Your task to perform on an android device: View the shopping cart on walmart.com. Add razer thresher to the cart on walmart.com, then select checkout. Image 0: 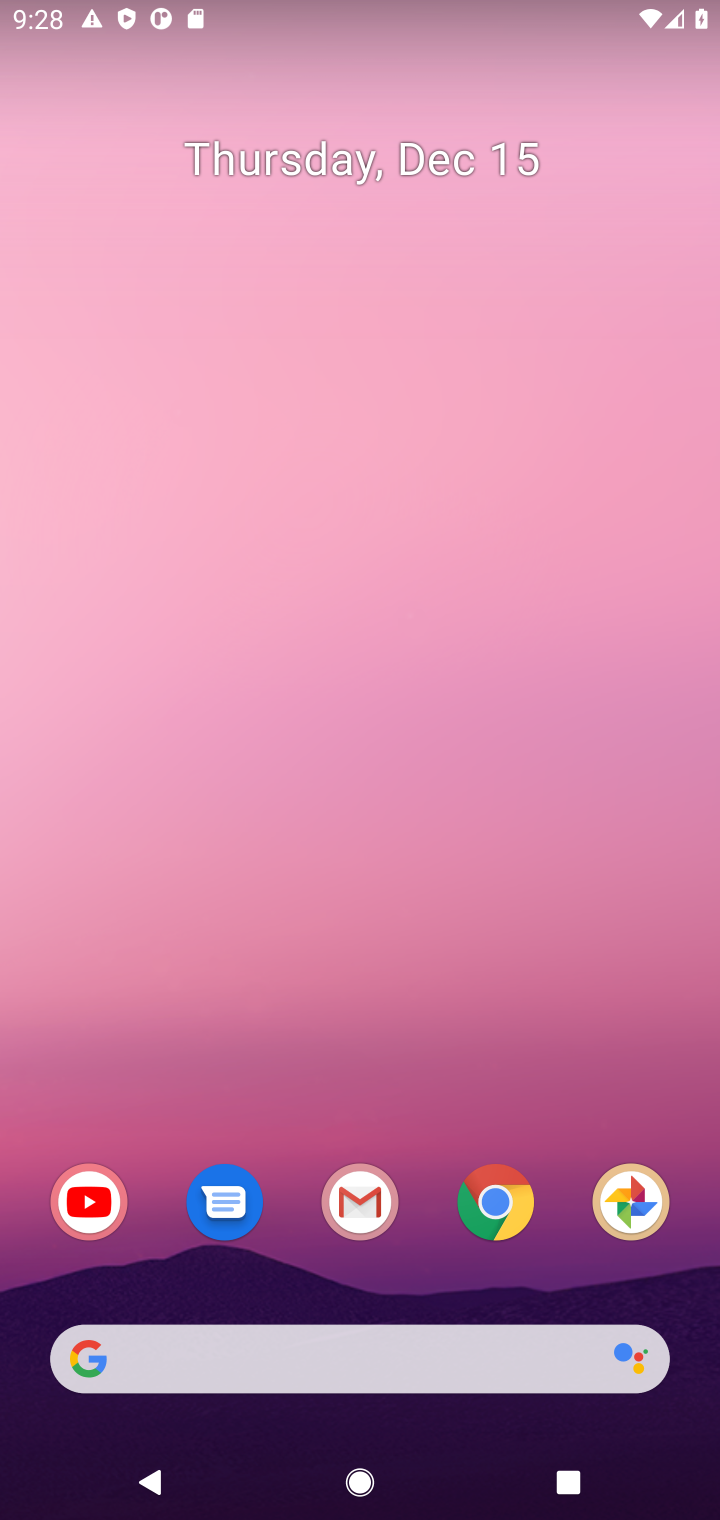
Step 0: click (497, 1197)
Your task to perform on an android device: View the shopping cart on walmart.com. Add razer thresher to the cart on walmart.com, then select checkout. Image 1: 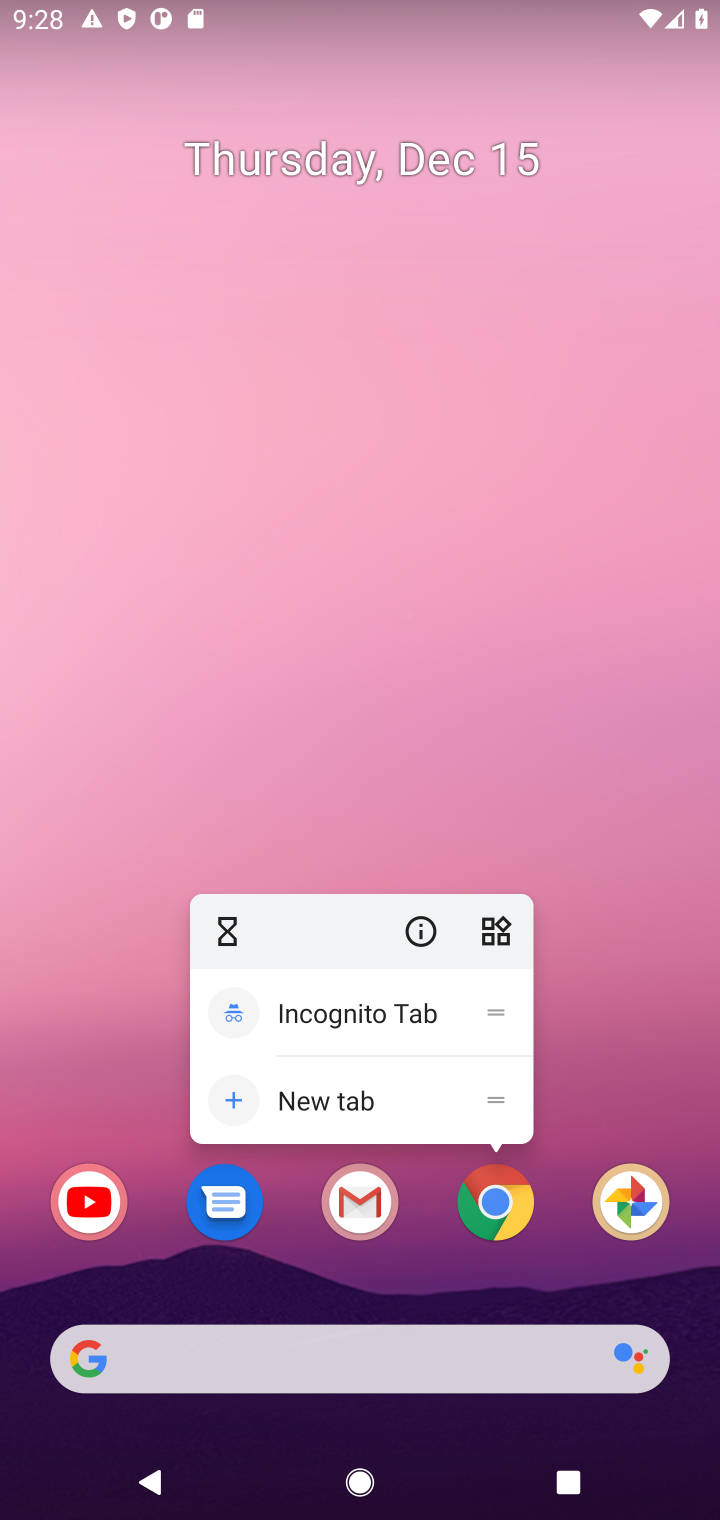
Step 1: click (497, 1209)
Your task to perform on an android device: View the shopping cart on walmart.com. Add razer thresher to the cart on walmart.com, then select checkout. Image 2: 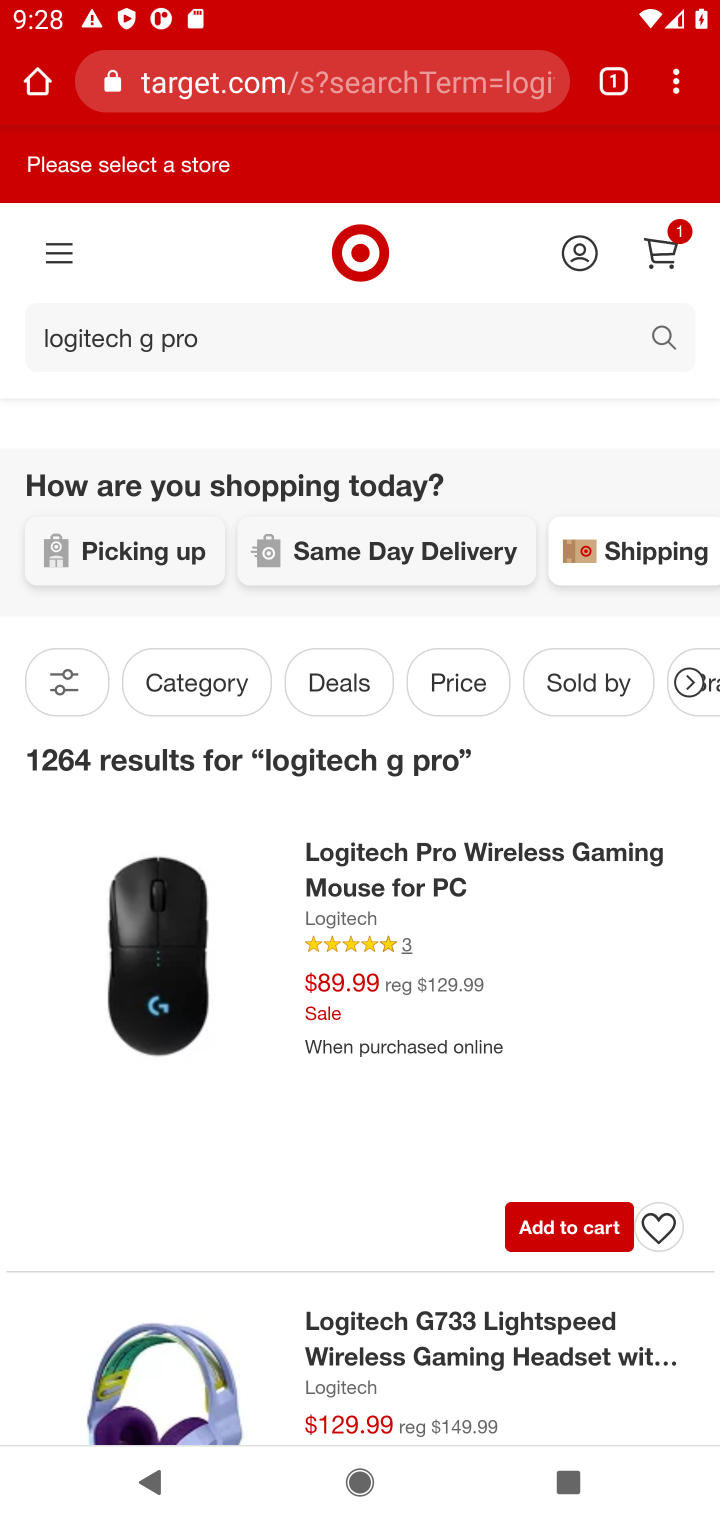
Step 2: click (280, 94)
Your task to perform on an android device: View the shopping cart on walmart.com. Add razer thresher to the cart on walmart.com, then select checkout. Image 3: 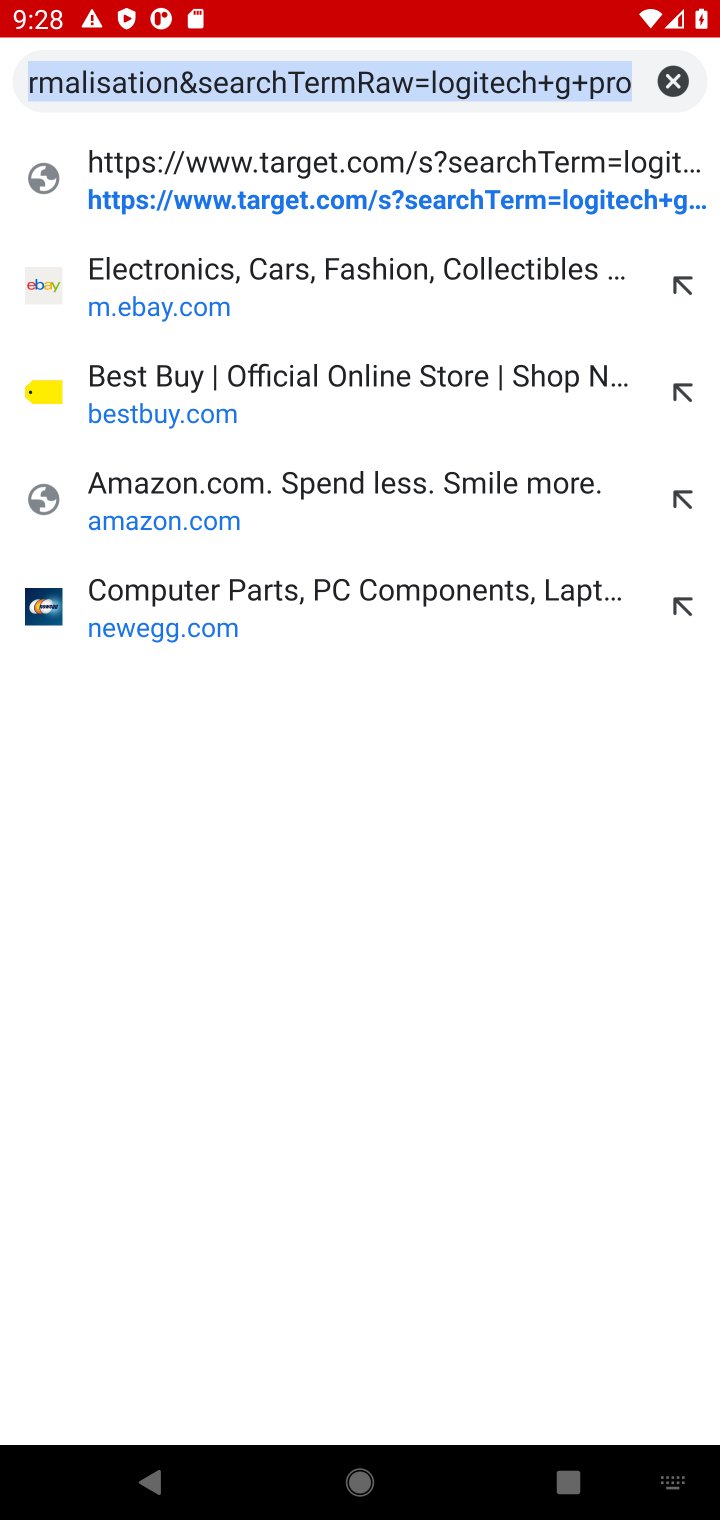
Step 3: type "walmart.com"
Your task to perform on an android device: View the shopping cart on walmart.com. Add razer thresher to the cart on walmart.com, then select checkout. Image 4: 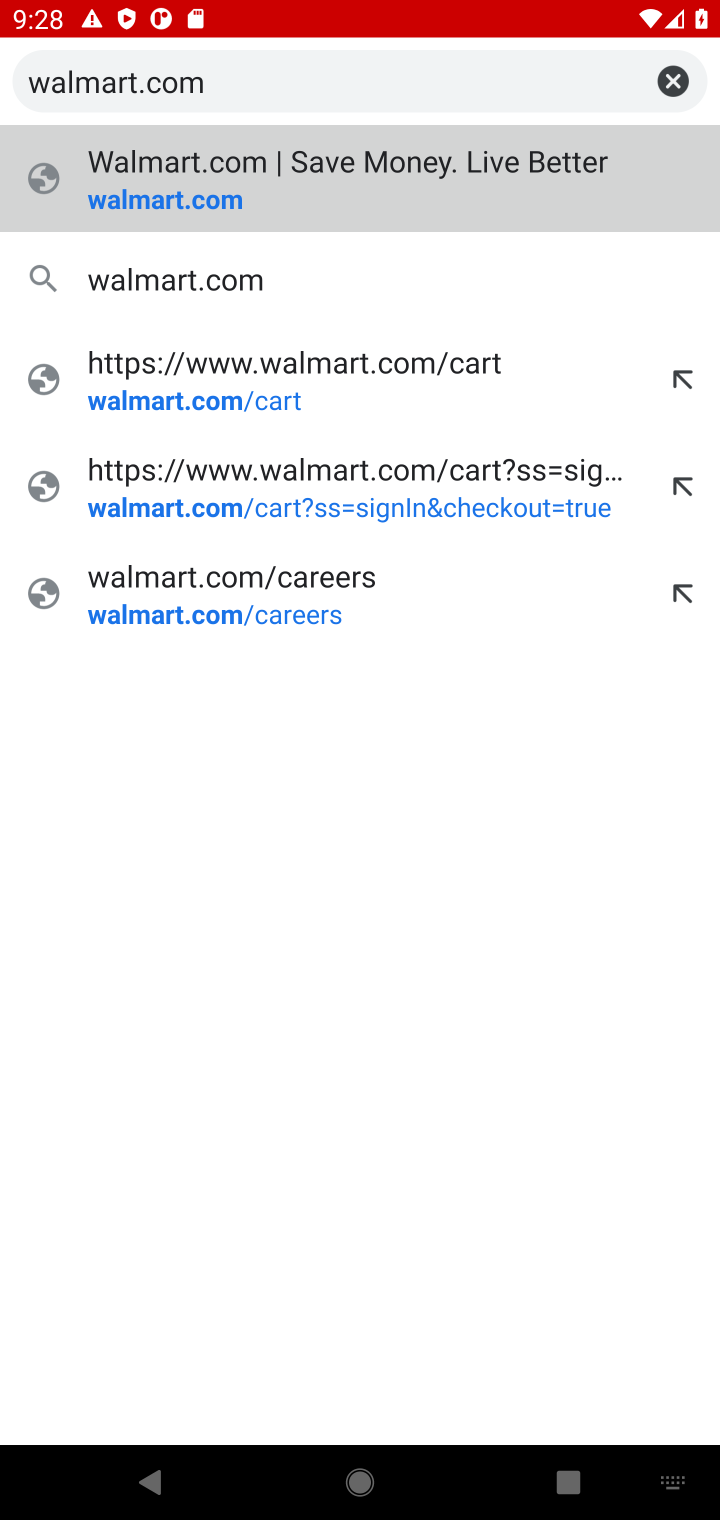
Step 4: click (127, 194)
Your task to perform on an android device: View the shopping cart on walmart.com. Add razer thresher to the cart on walmart.com, then select checkout. Image 5: 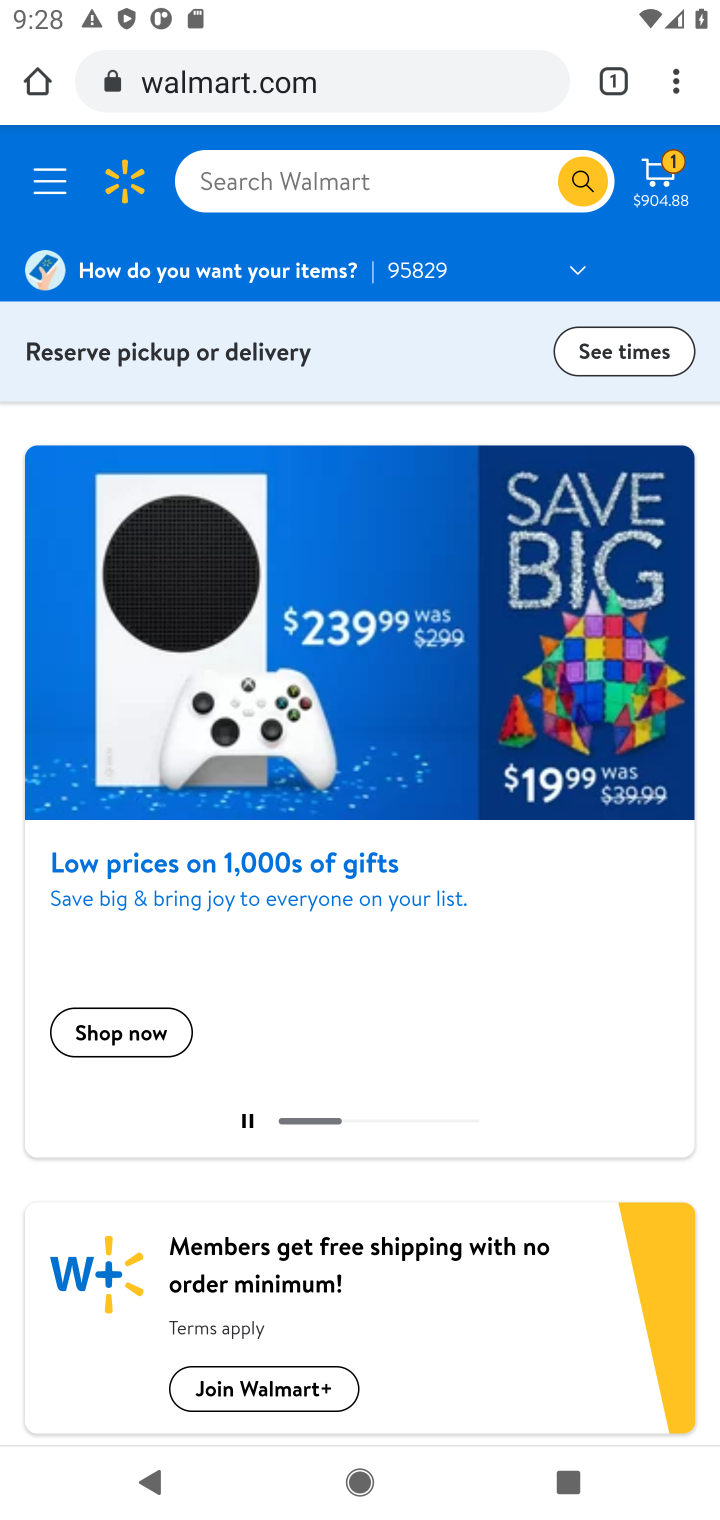
Step 5: click (671, 191)
Your task to perform on an android device: View the shopping cart on walmart.com. Add razer thresher to the cart on walmart.com, then select checkout. Image 6: 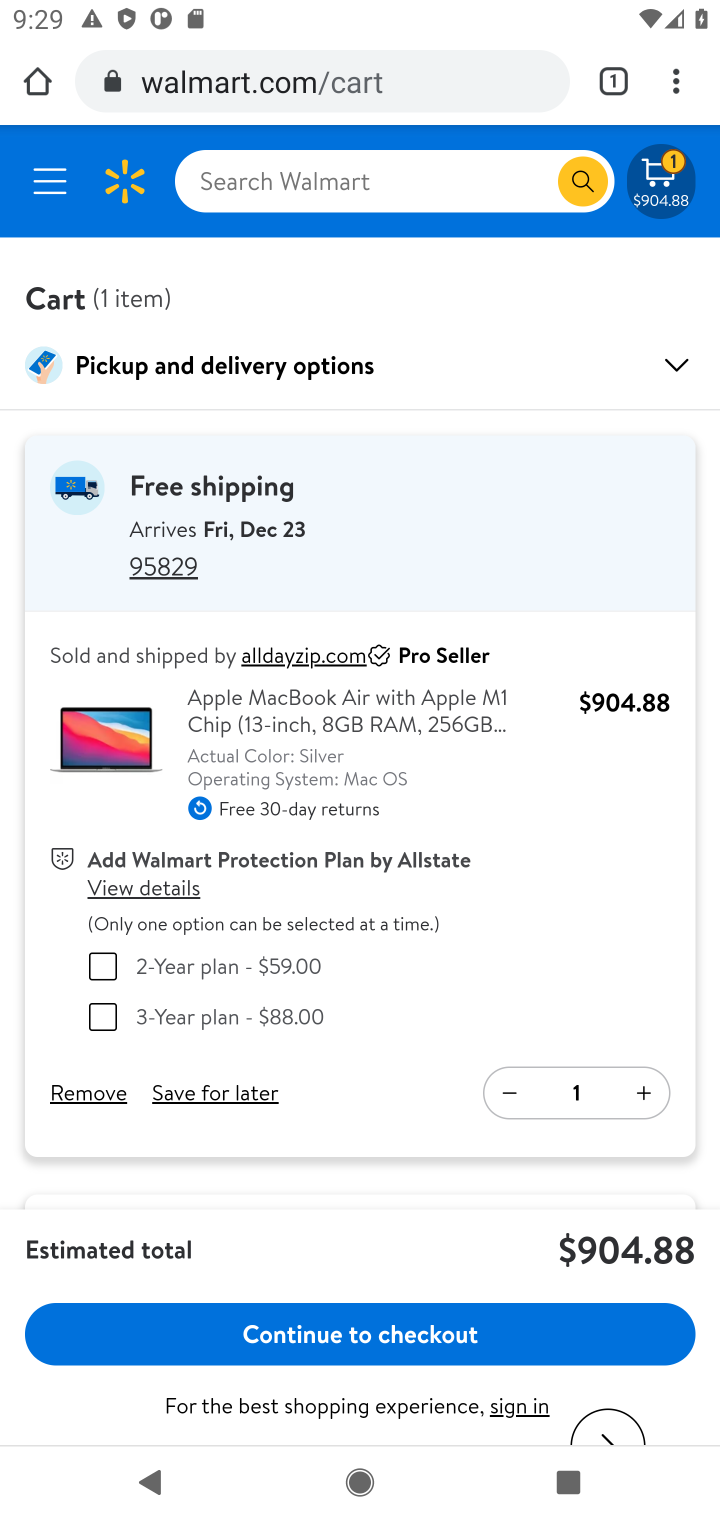
Step 6: click (244, 185)
Your task to perform on an android device: View the shopping cart on walmart.com. Add razer thresher to the cart on walmart.com, then select checkout. Image 7: 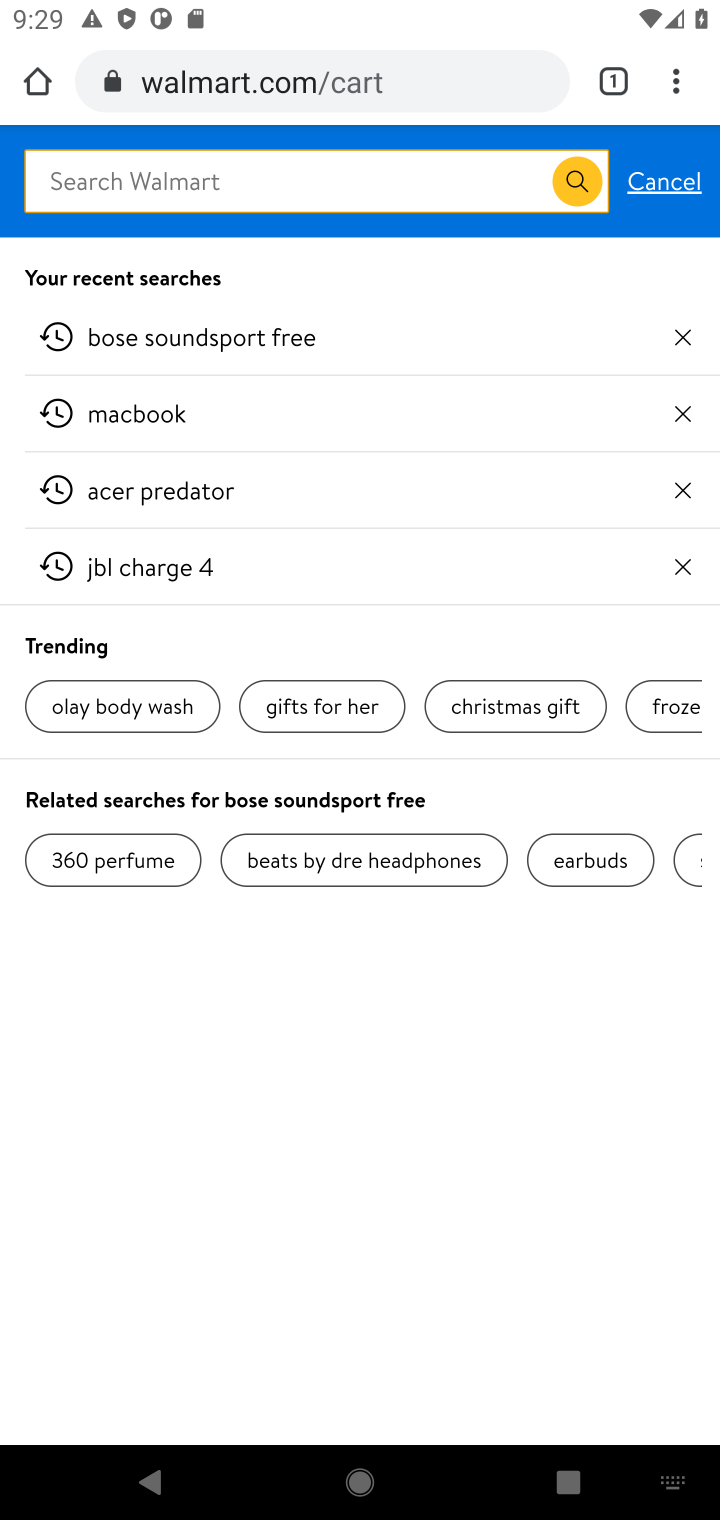
Step 7: type " razer thresher"
Your task to perform on an android device: View the shopping cart on walmart.com. Add razer thresher to the cart on walmart.com, then select checkout. Image 8: 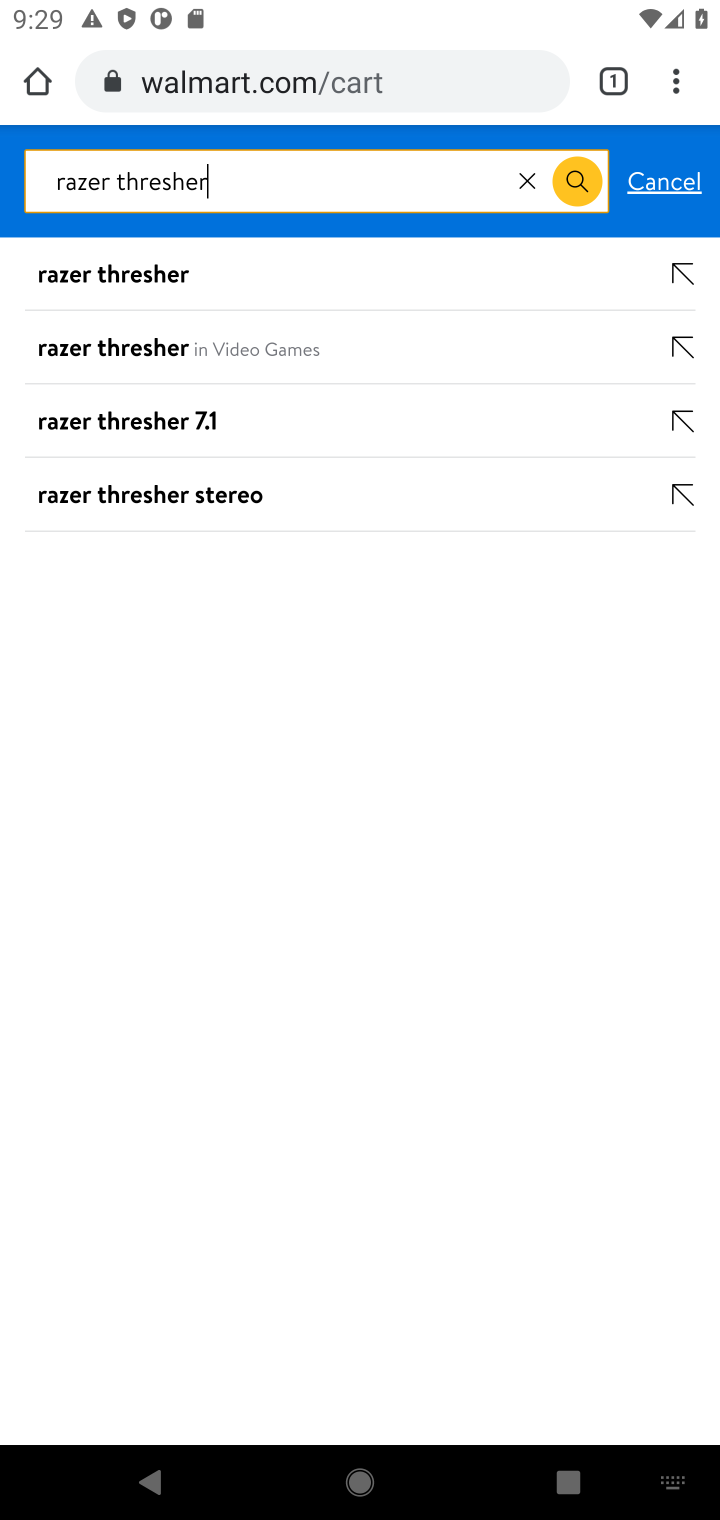
Step 8: click (147, 281)
Your task to perform on an android device: View the shopping cart on walmart.com. Add razer thresher to the cart on walmart.com, then select checkout. Image 9: 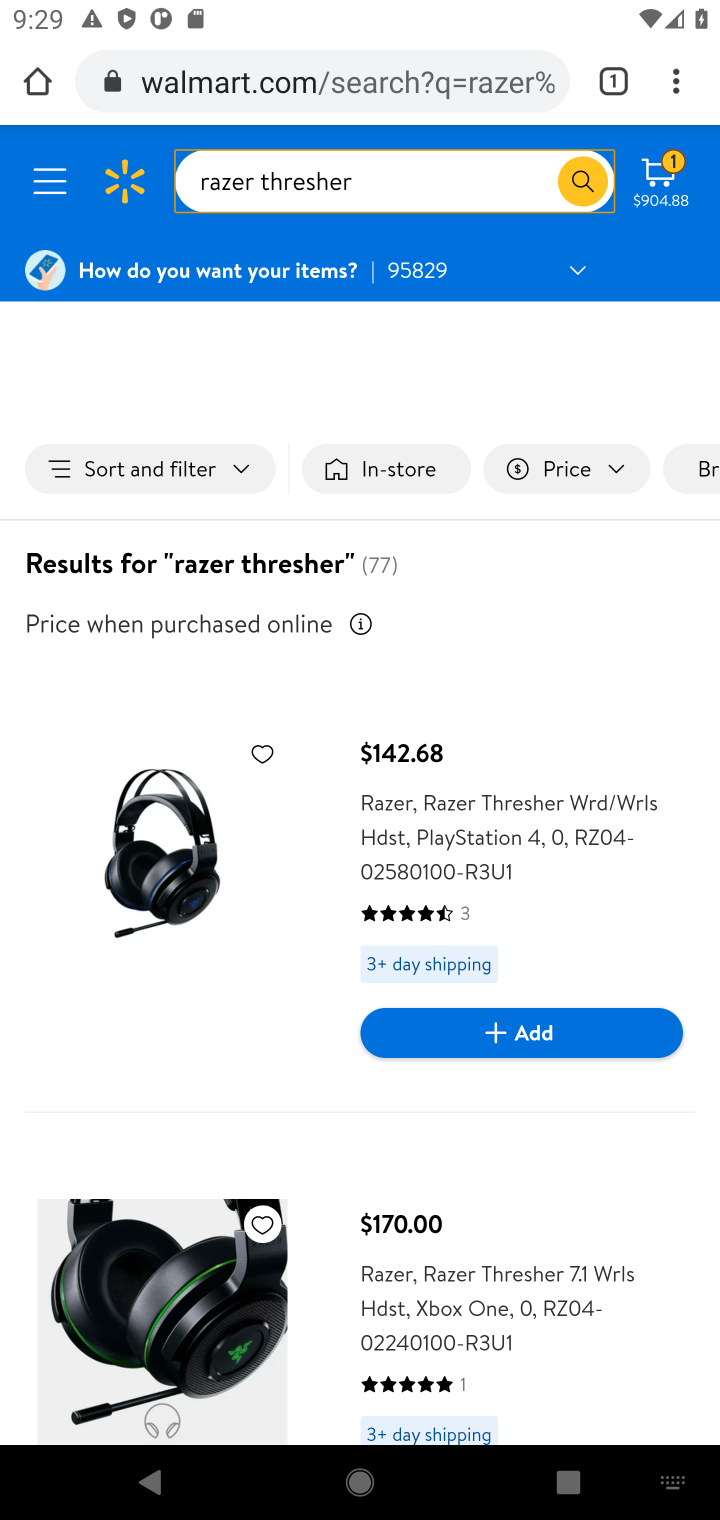
Step 9: click (489, 1035)
Your task to perform on an android device: View the shopping cart on walmart.com. Add razer thresher to the cart on walmart.com, then select checkout. Image 10: 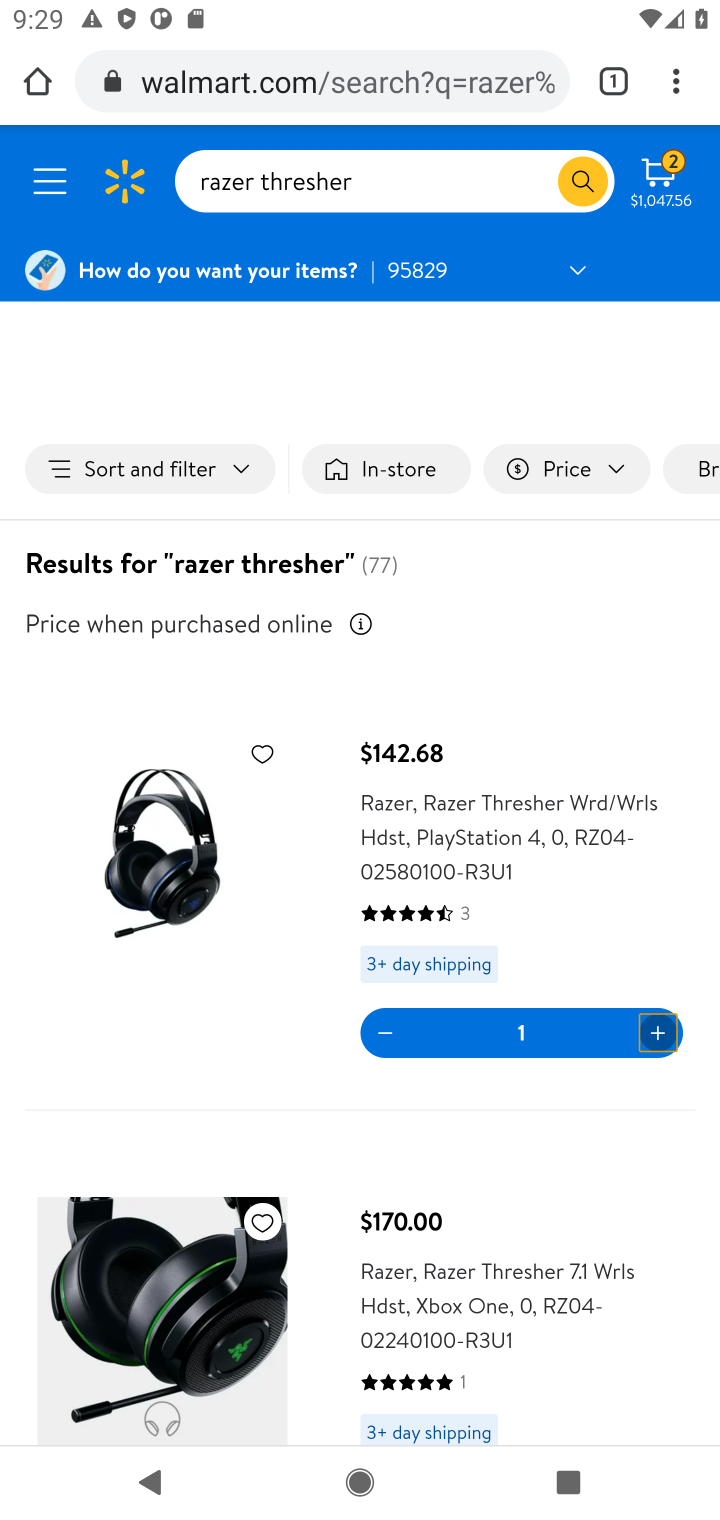
Step 10: click (657, 194)
Your task to perform on an android device: View the shopping cart on walmart.com. Add razer thresher to the cart on walmart.com, then select checkout. Image 11: 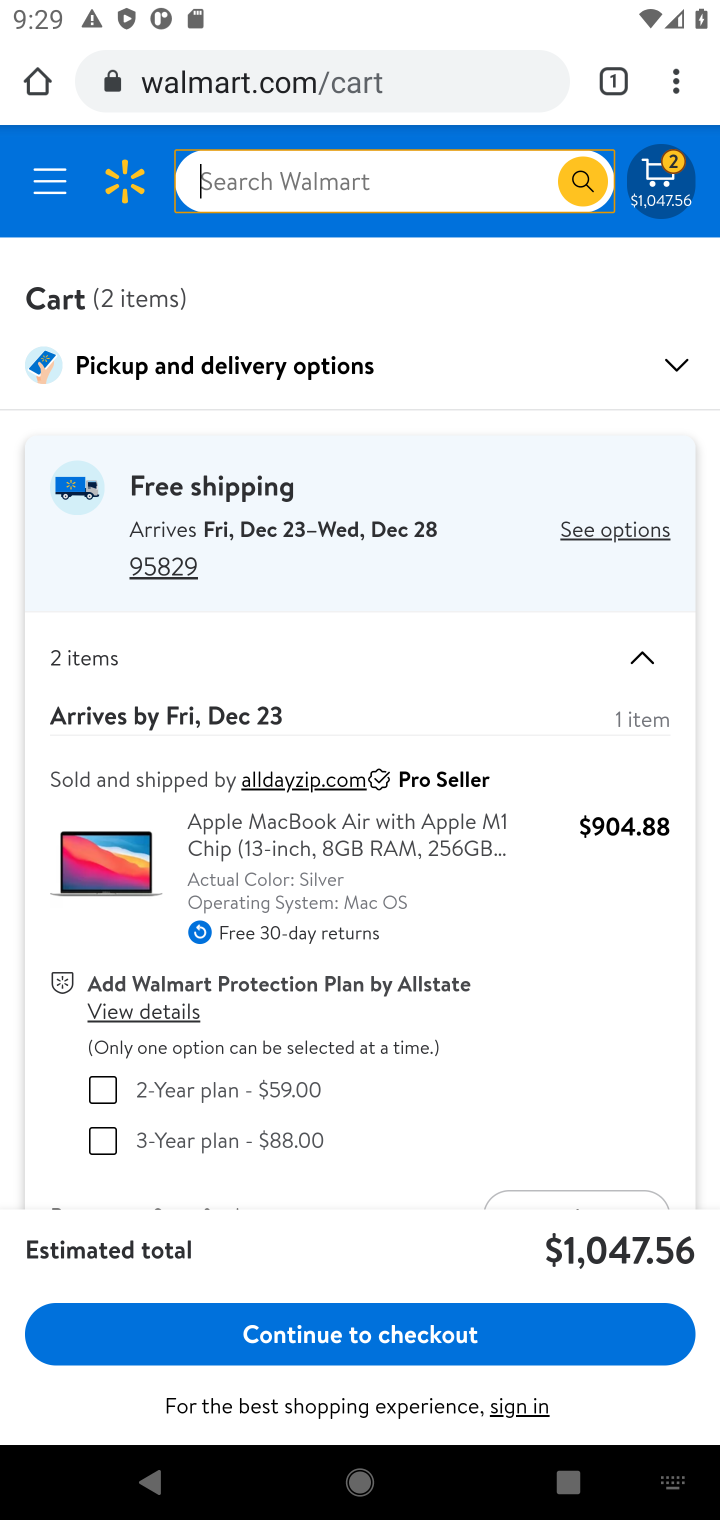
Step 11: click (301, 1334)
Your task to perform on an android device: View the shopping cart on walmart.com. Add razer thresher to the cart on walmart.com, then select checkout. Image 12: 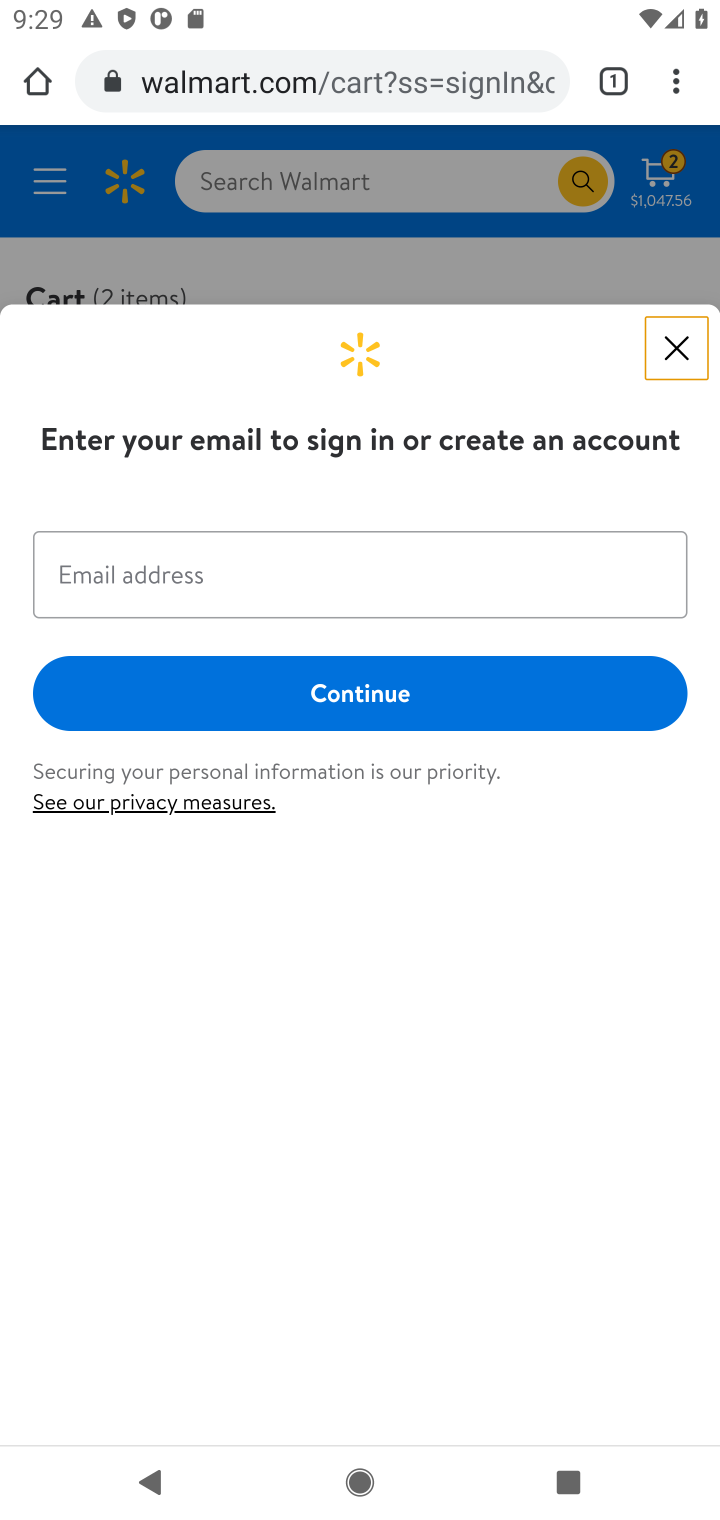
Step 12: task complete